Your task to perform on an android device: install app "Microsoft Authenticator" Image 0: 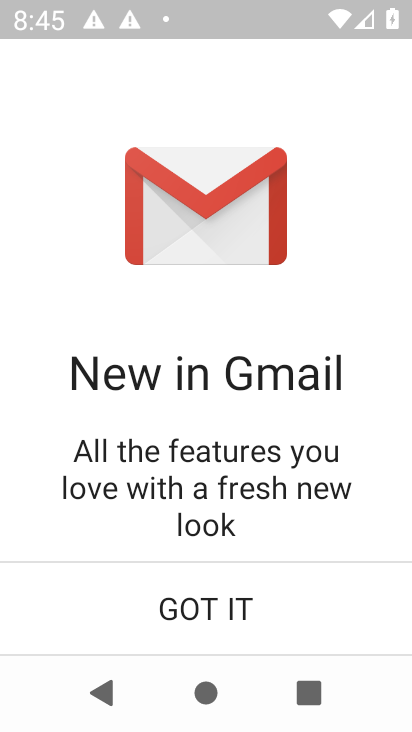
Step 0: press home button
Your task to perform on an android device: install app "Microsoft Authenticator" Image 1: 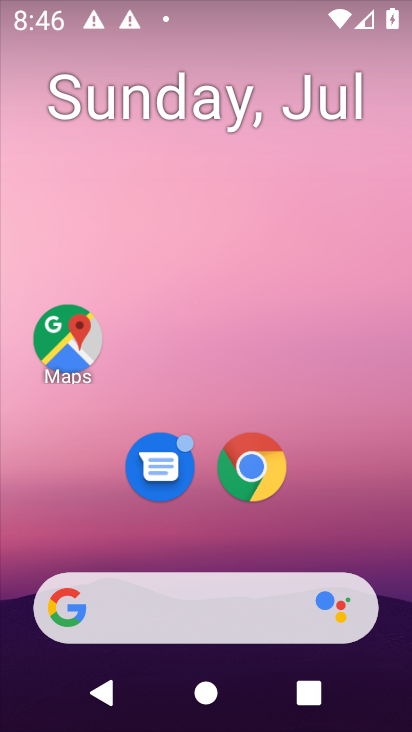
Step 1: drag from (219, 417) to (300, 64)
Your task to perform on an android device: install app "Microsoft Authenticator" Image 2: 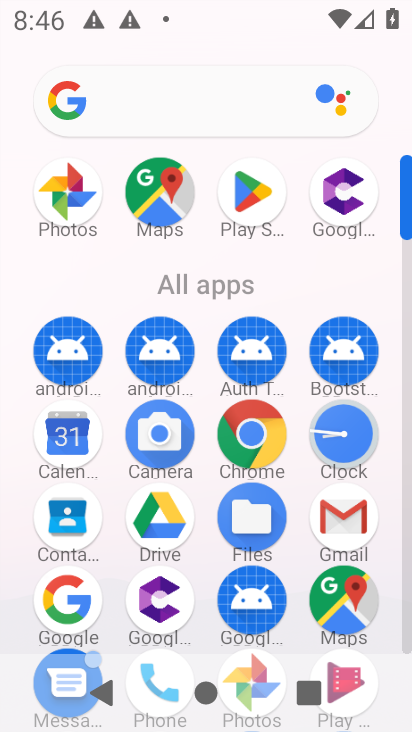
Step 2: click (246, 202)
Your task to perform on an android device: install app "Microsoft Authenticator" Image 3: 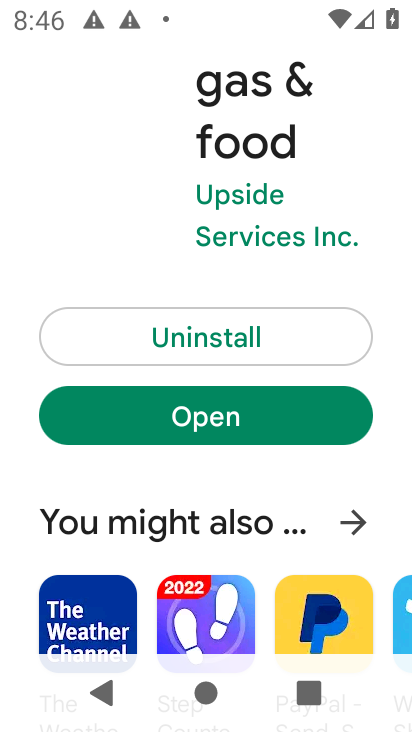
Step 3: press back button
Your task to perform on an android device: install app "Microsoft Authenticator" Image 4: 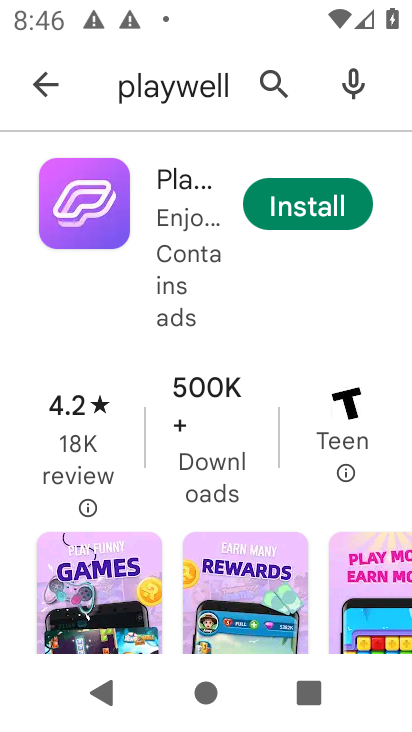
Step 4: click (264, 87)
Your task to perform on an android device: install app "Microsoft Authenticator" Image 5: 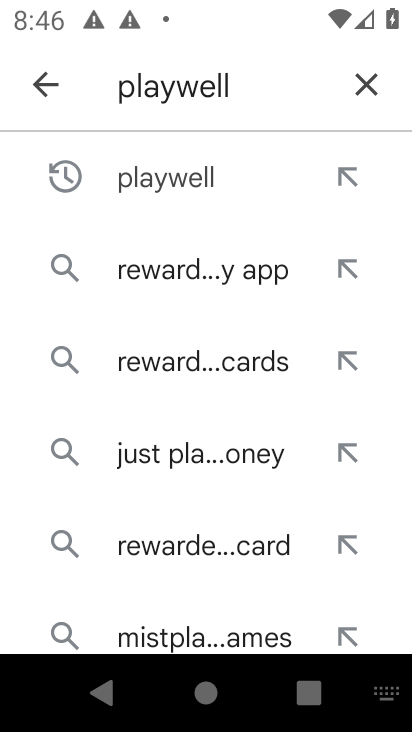
Step 5: click (365, 84)
Your task to perform on an android device: install app "Microsoft Authenticator" Image 6: 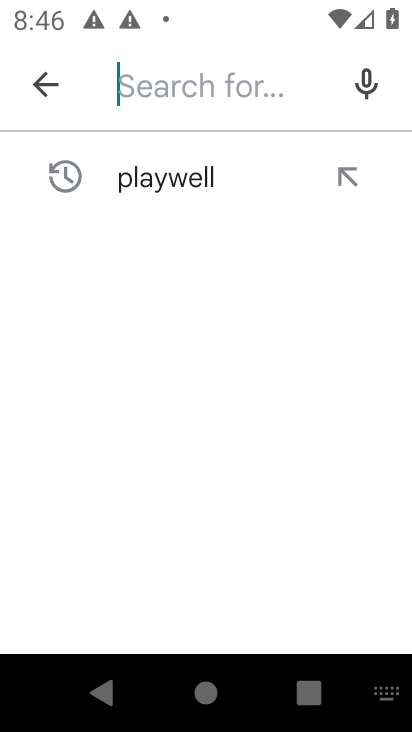
Step 6: type "microsoft autheni"
Your task to perform on an android device: install app "Microsoft Authenticator" Image 7: 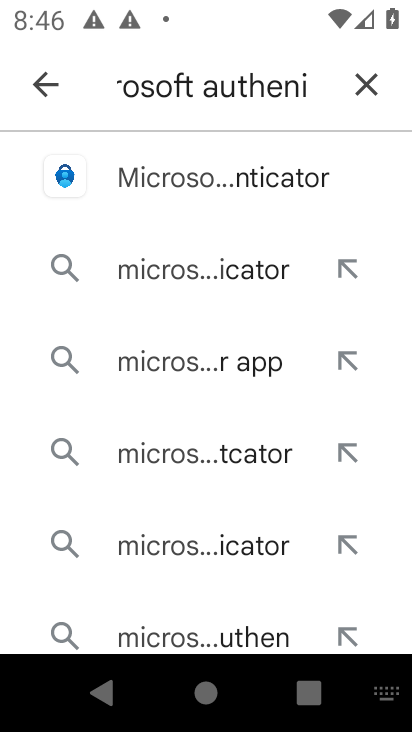
Step 7: click (317, 161)
Your task to perform on an android device: install app "Microsoft Authenticator" Image 8: 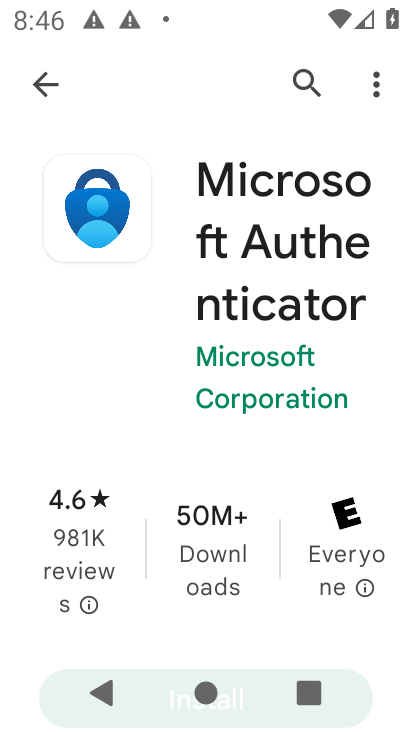
Step 8: drag from (242, 619) to (260, 337)
Your task to perform on an android device: install app "Microsoft Authenticator" Image 9: 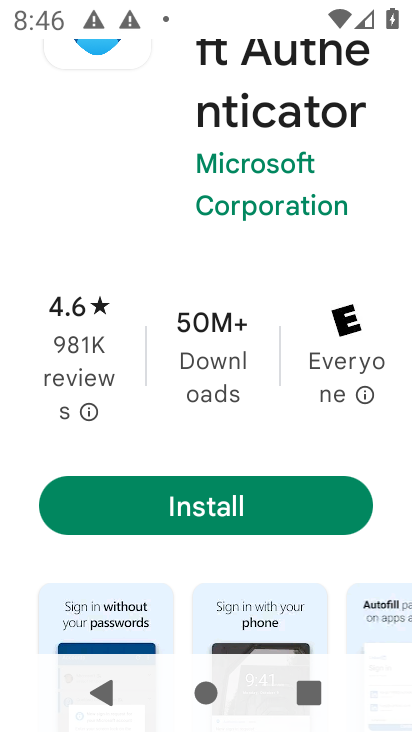
Step 9: click (222, 491)
Your task to perform on an android device: install app "Microsoft Authenticator" Image 10: 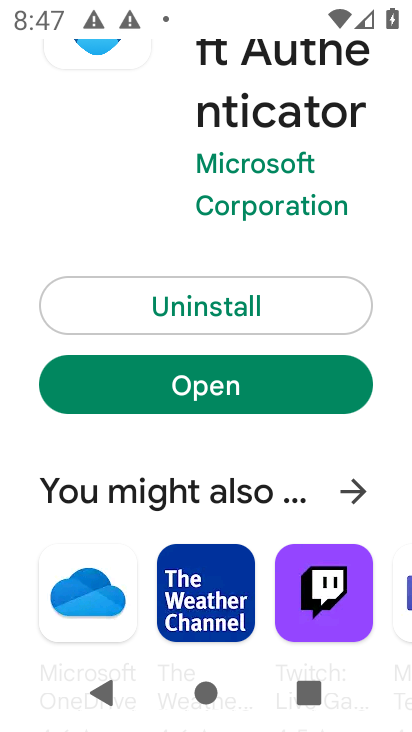
Step 10: task complete